Your task to perform on an android device: turn on notifications settings in the gmail app Image 0: 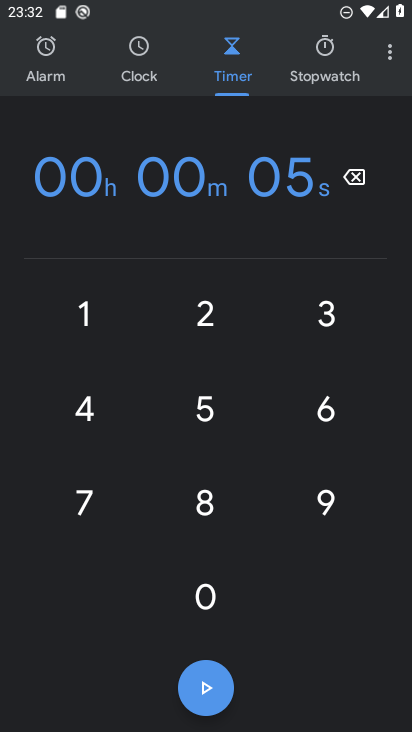
Step 0: press home button
Your task to perform on an android device: turn on notifications settings in the gmail app Image 1: 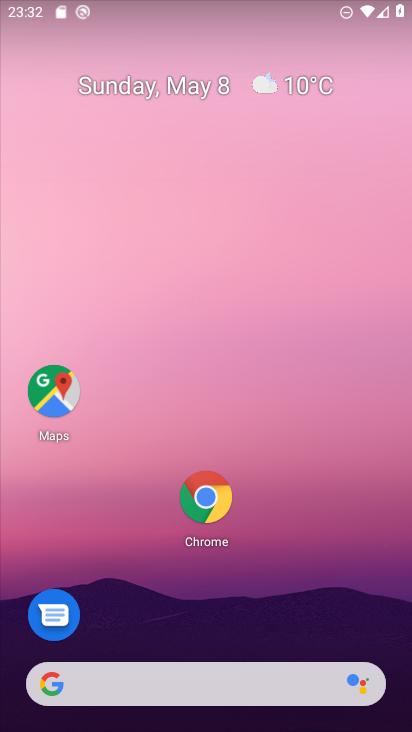
Step 1: drag from (318, 620) to (358, 165)
Your task to perform on an android device: turn on notifications settings in the gmail app Image 2: 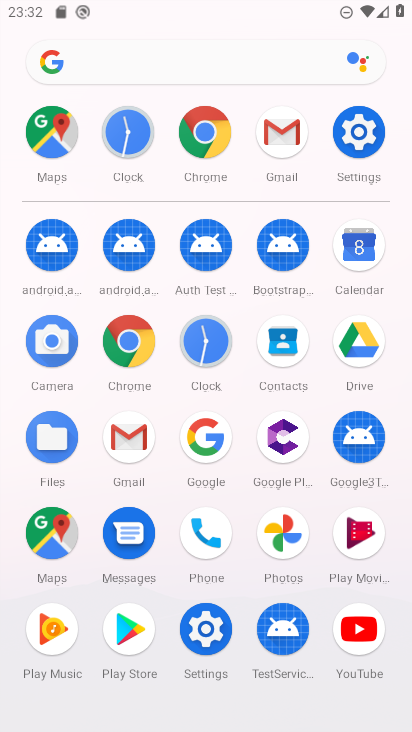
Step 2: click (277, 132)
Your task to perform on an android device: turn on notifications settings in the gmail app Image 3: 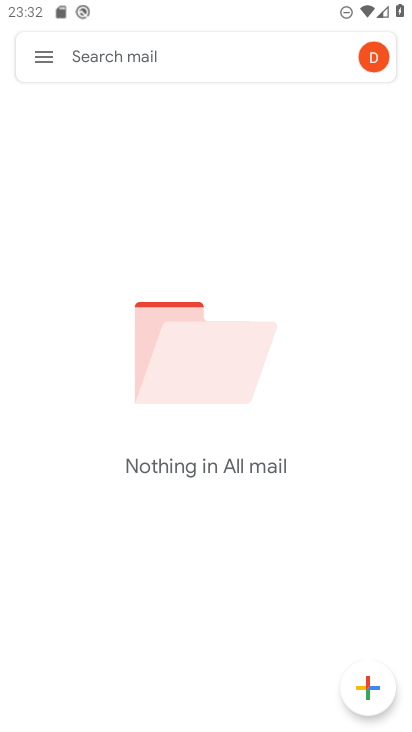
Step 3: click (40, 53)
Your task to perform on an android device: turn on notifications settings in the gmail app Image 4: 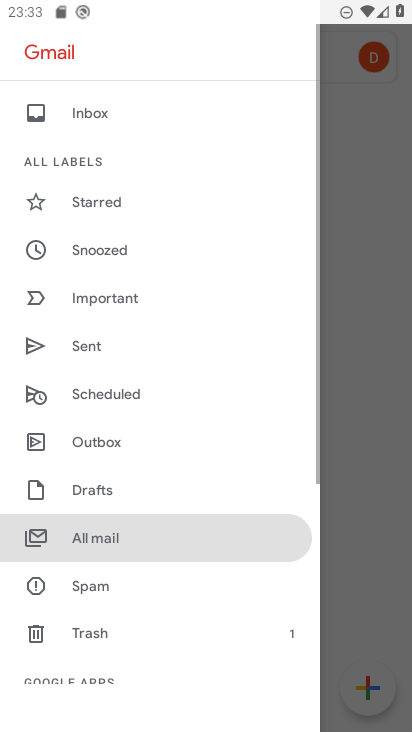
Step 4: drag from (165, 624) to (172, 170)
Your task to perform on an android device: turn on notifications settings in the gmail app Image 5: 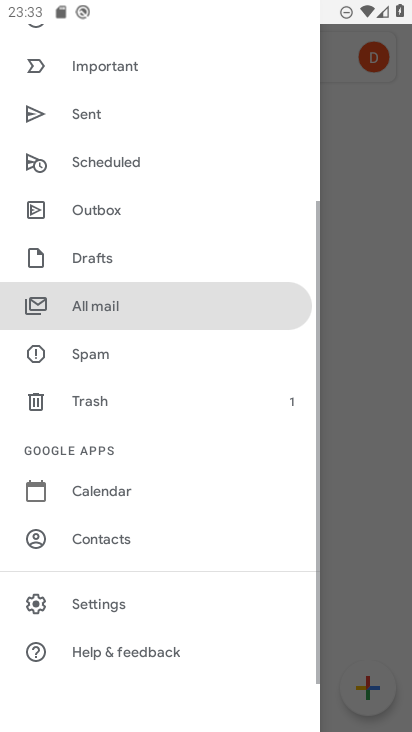
Step 5: click (106, 606)
Your task to perform on an android device: turn on notifications settings in the gmail app Image 6: 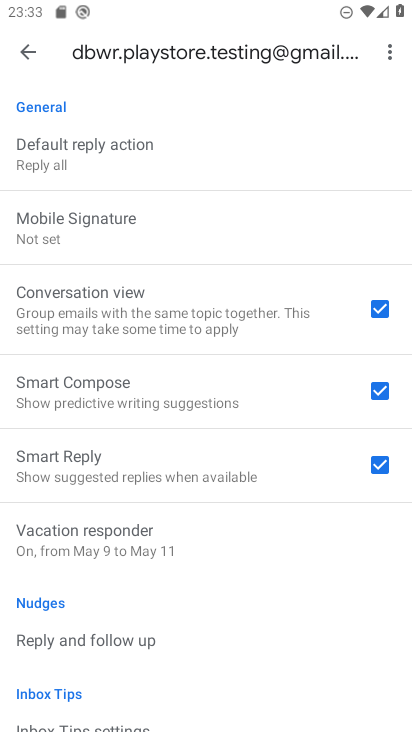
Step 6: drag from (195, 566) to (254, 59)
Your task to perform on an android device: turn on notifications settings in the gmail app Image 7: 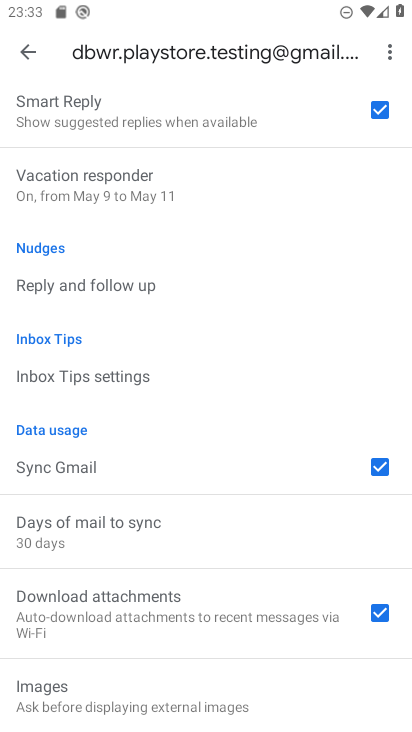
Step 7: drag from (230, 615) to (251, 124)
Your task to perform on an android device: turn on notifications settings in the gmail app Image 8: 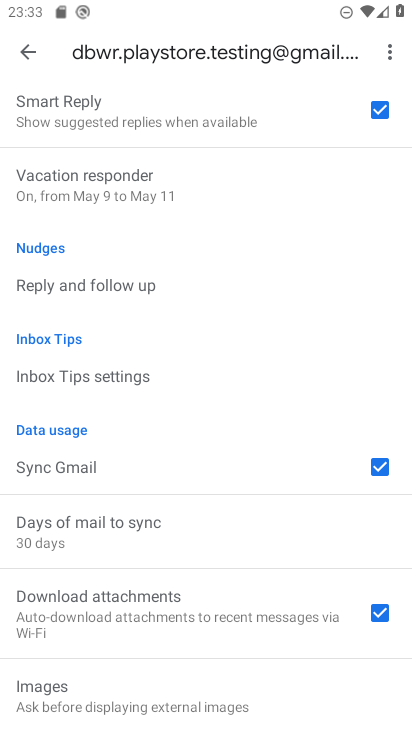
Step 8: drag from (277, 186) to (251, 506)
Your task to perform on an android device: turn on notifications settings in the gmail app Image 9: 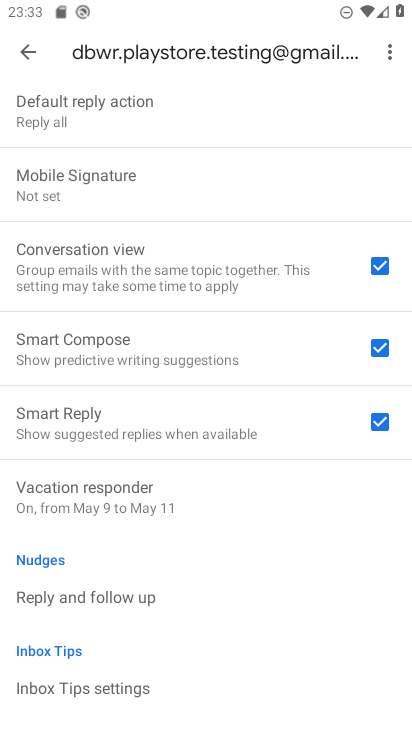
Step 9: drag from (237, 161) to (274, 528)
Your task to perform on an android device: turn on notifications settings in the gmail app Image 10: 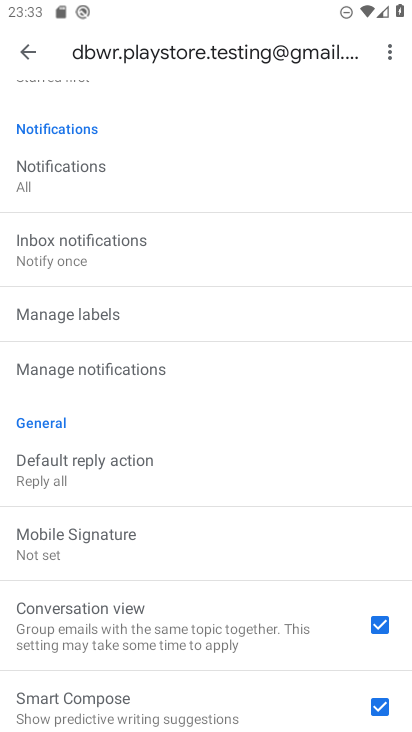
Step 10: click (157, 366)
Your task to perform on an android device: turn on notifications settings in the gmail app Image 11: 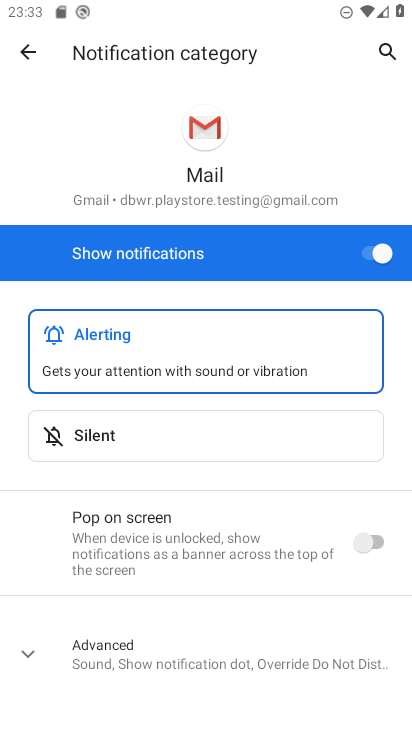
Step 11: task complete